Your task to perform on an android device: Open internet settings Image 0: 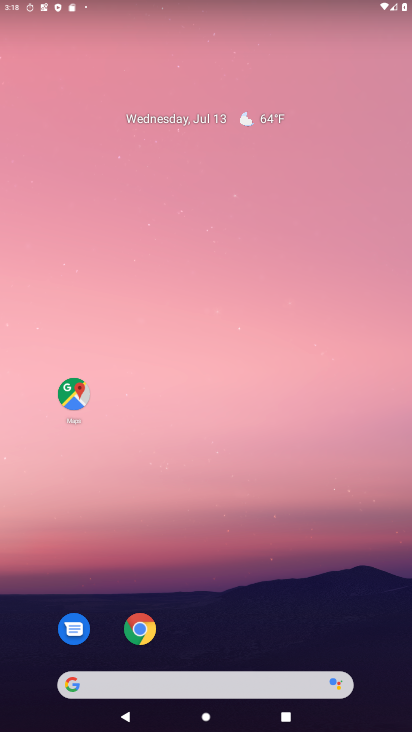
Step 0: drag from (216, 692) to (175, 183)
Your task to perform on an android device: Open internet settings Image 1: 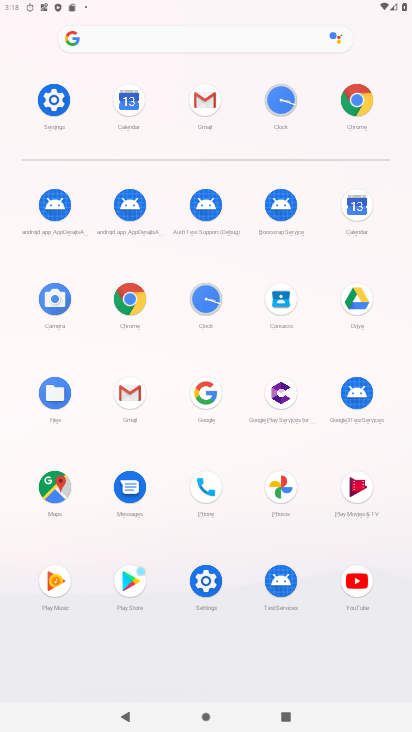
Step 1: click (67, 96)
Your task to perform on an android device: Open internet settings Image 2: 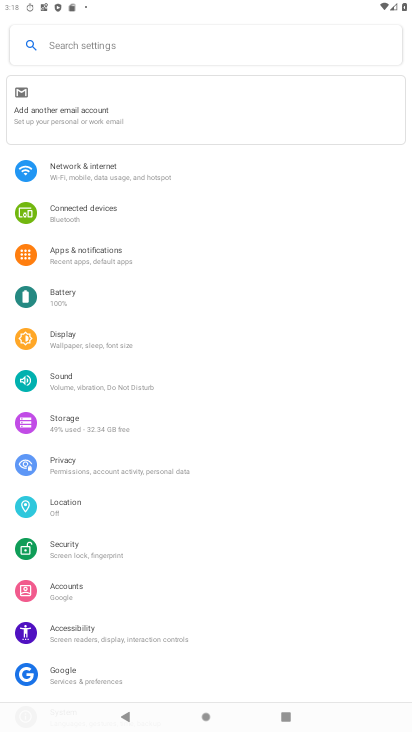
Step 2: click (120, 170)
Your task to perform on an android device: Open internet settings Image 3: 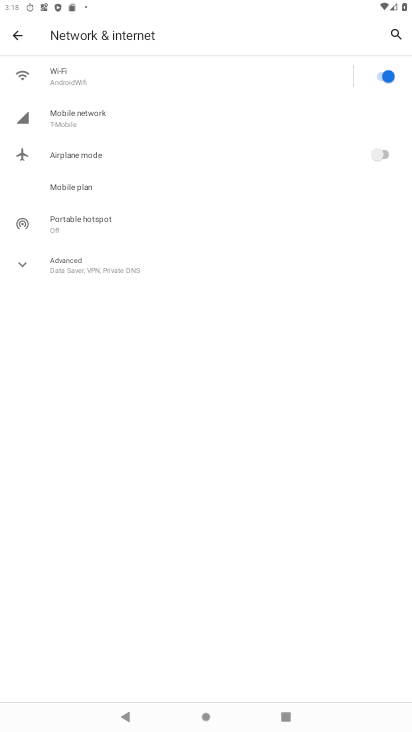
Step 3: task complete